Your task to perform on an android device: Check the news Image 0: 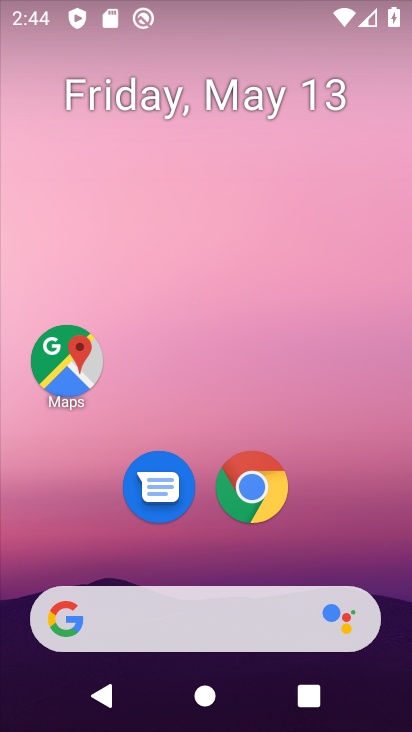
Step 0: drag from (366, 539) to (351, 124)
Your task to perform on an android device: Check the news Image 1: 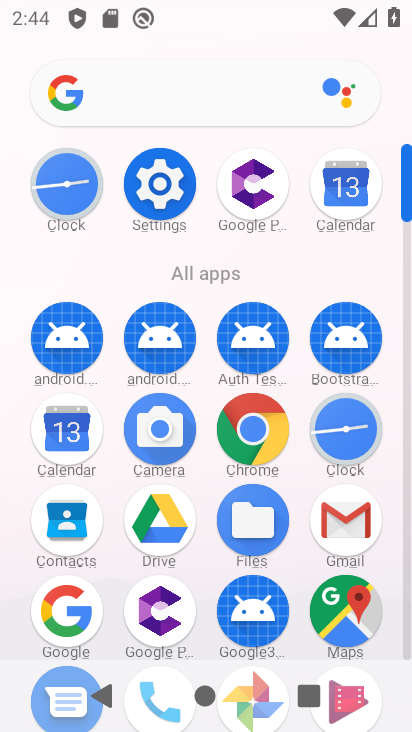
Step 1: click (245, 430)
Your task to perform on an android device: Check the news Image 2: 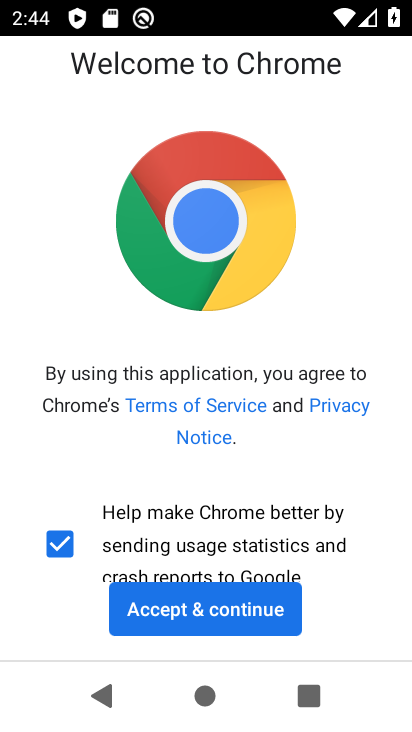
Step 2: click (241, 606)
Your task to perform on an android device: Check the news Image 3: 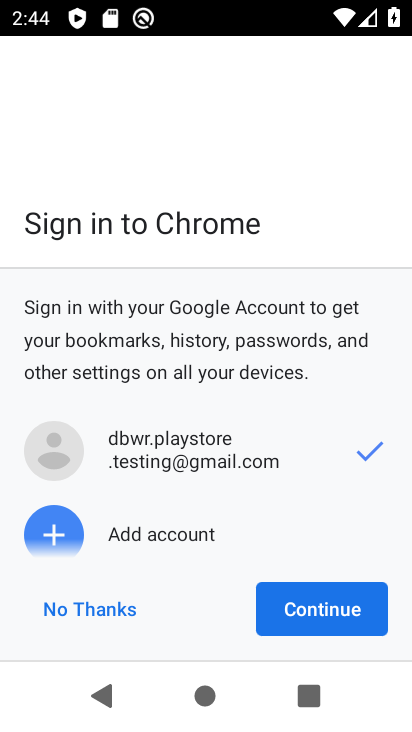
Step 3: click (109, 612)
Your task to perform on an android device: Check the news Image 4: 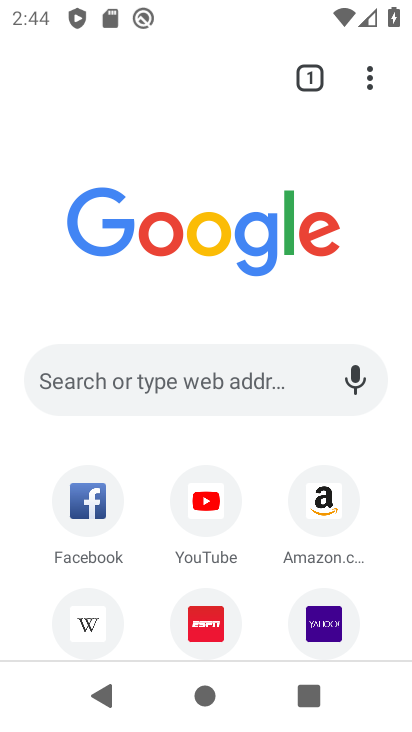
Step 4: task complete